Your task to perform on an android device: Open calendar and show me the third week of next month Image 0: 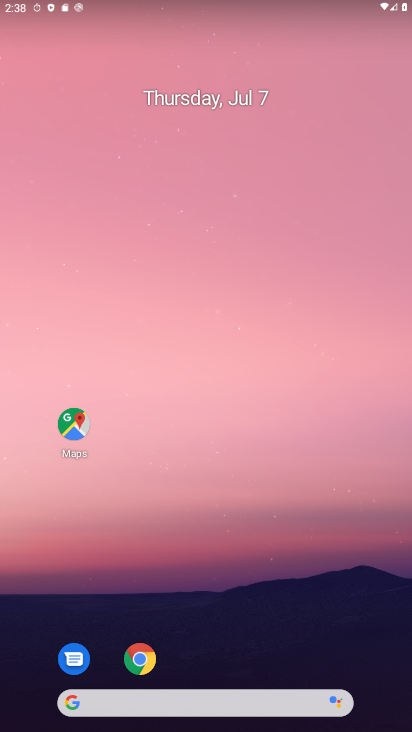
Step 0: drag from (68, 714) to (209, 14)
Your task to perform on an android device: Open calendar and show me the third week of next month Image 1: 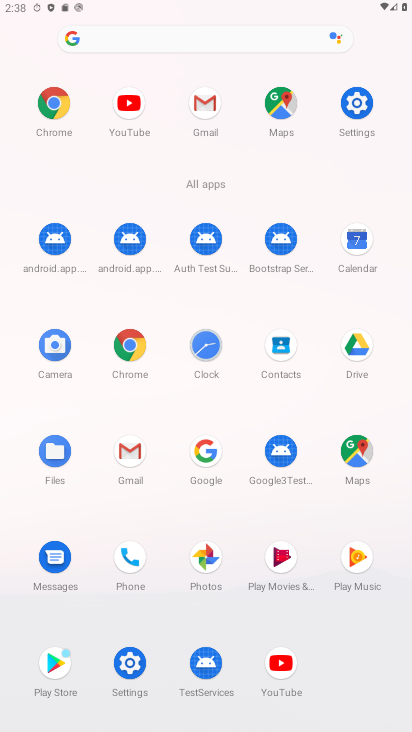
Step 1: click (353, 230)
Your task to perform on an android device: Open calendar and show me the third week of next month Image 2: 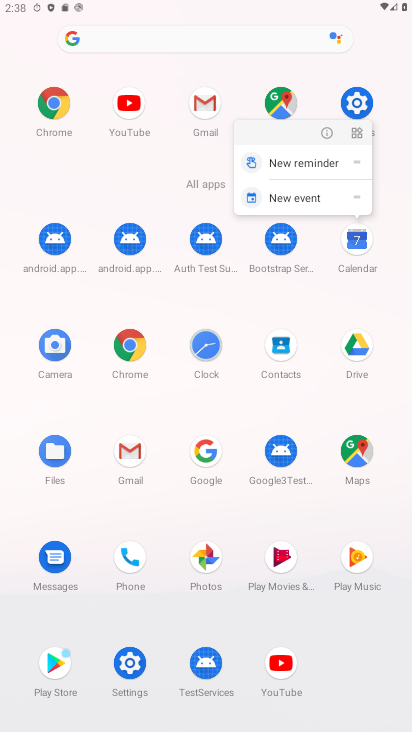
Step 2: click (345, 247)
Your task to perform on an android device: Open calendar and show me the third week of next month Image 3: 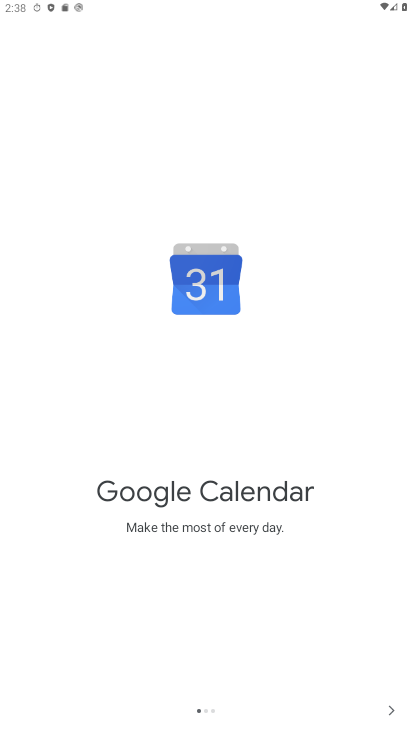
Step 3: click (390, 709)
Your task to perform on an android device: Open calendar and show me the third week of next month Image 4: 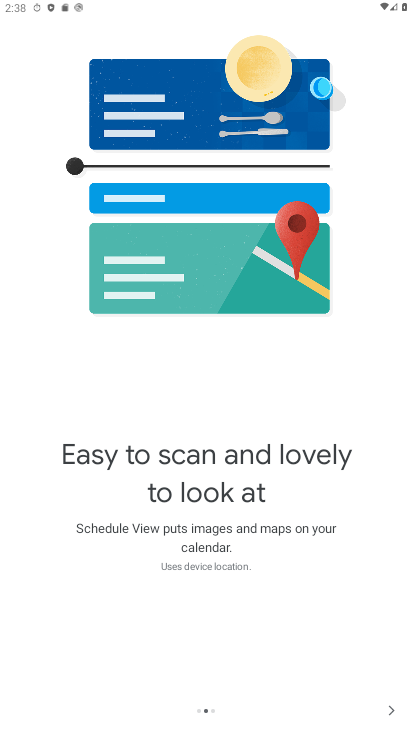
Step 4: click (386, 710)
Your task to perform on an android device: Open calendar and show me the third week of next month Image 5: 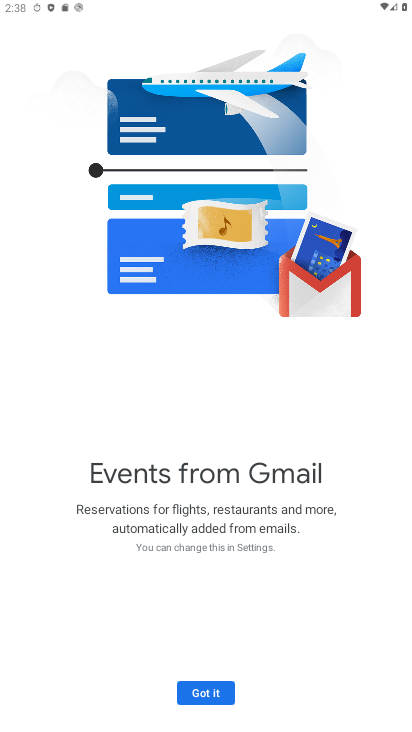
Step 5: click (191, 689)
Your task to perform on an android device: Open calendar and show me the third week of next month Image 6: 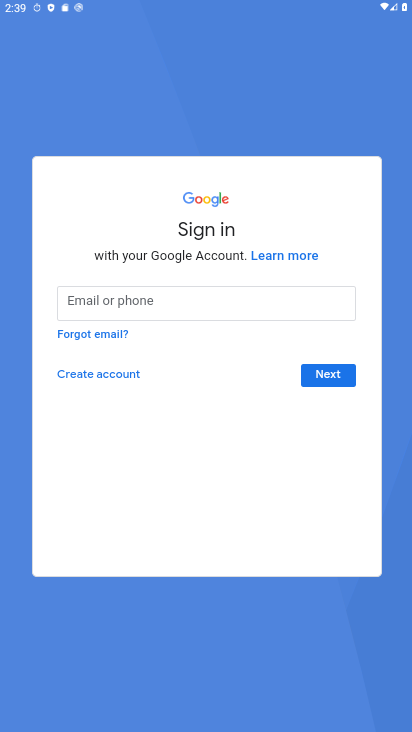
Step 6: task complete